Your task to perform on an android device: allow notifications from all sites in the chrome app Image 0: 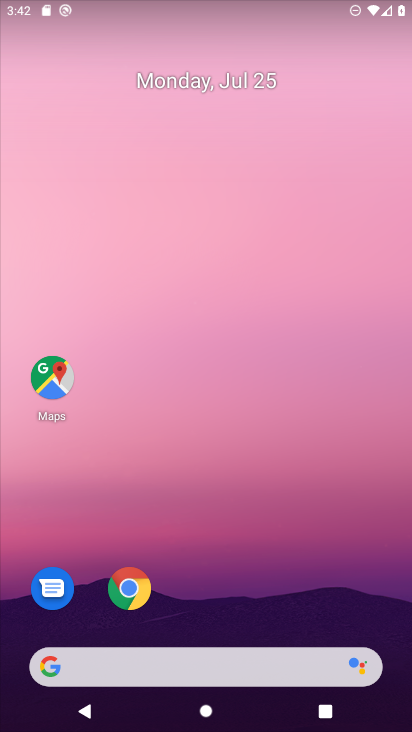
Step 0: drag from (203, 689) to (182, 166)
Your task to perform on an android device: allow notifications from all sites in the chrome app Image 1: 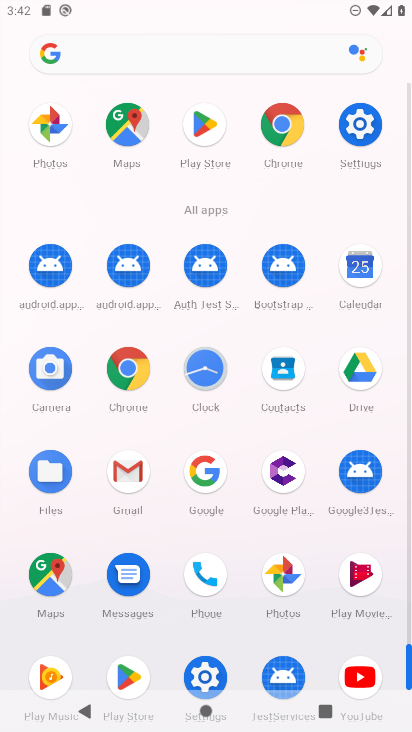
Step 1: click (286, 108)
Your task to perform on an android device: allow notifications from all sites in the chrome app Image 2: 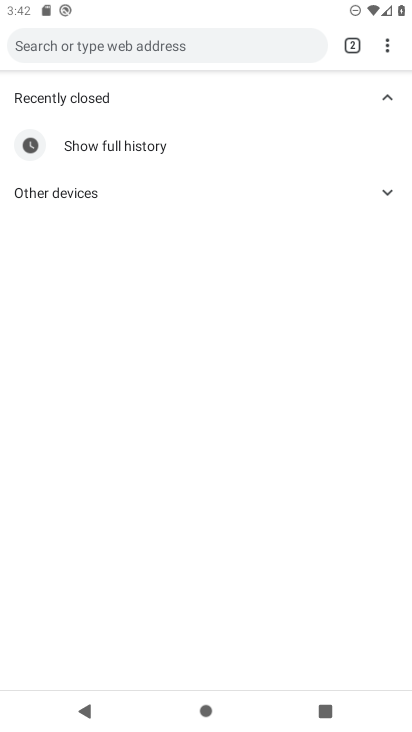
Step 2: press back button
Your task to perform on an android device: allow notifications from all sites in the chrome app Image 3: 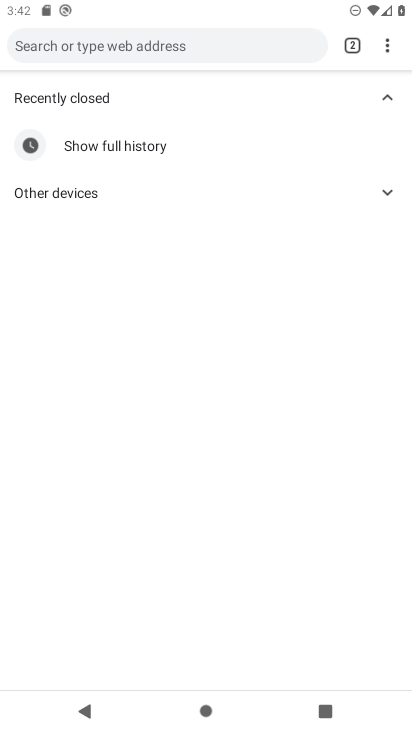
Step 3: press back button
Your task to perform on an android device: allow notifications from all sites in the chrome app Image 4: 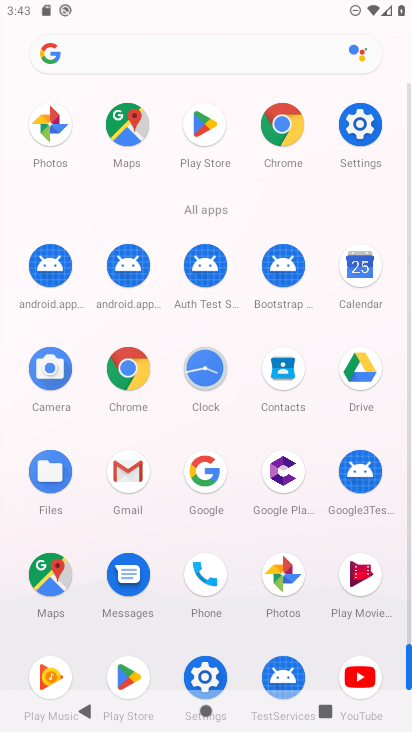
Step 4: click (285, 117)
Your task to perform on an android device: allow notifications from all sites in the chrome app Image 5: 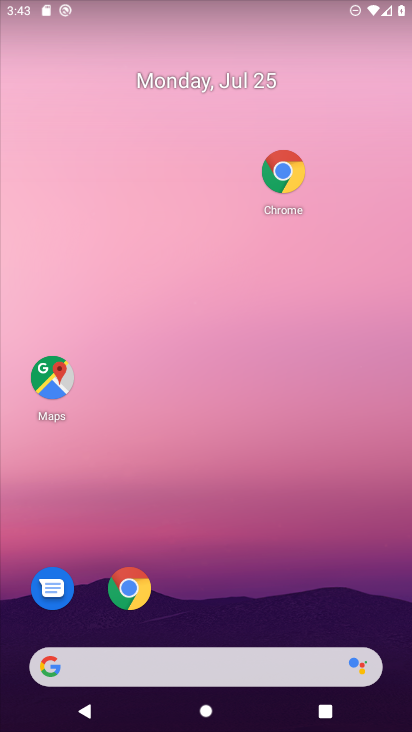
Step 5: drag from (301, 517) to (236, 158)
Your task to perform on an android device: allow notifications from all sites in the chrome app Image 6: 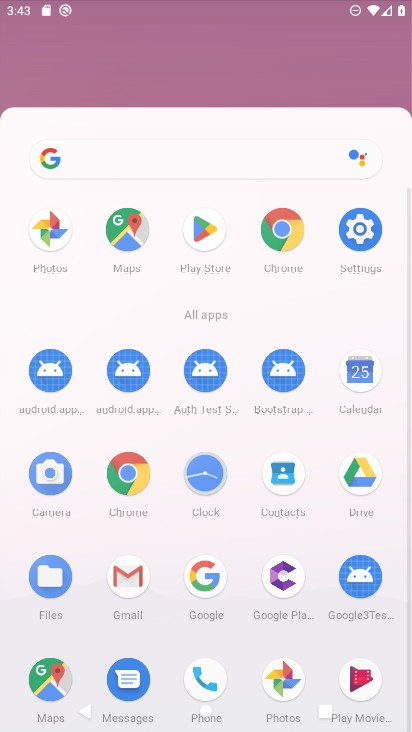
Step 6: drag from (269, 509) to (269, 267)
Your task to perform on an android device: allow notifications from all sites in the chrome app Image 7: 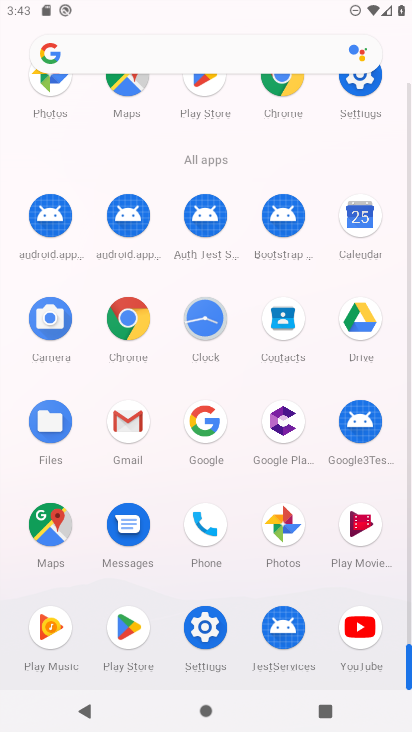
Step 7: click (113, 319)
Your task to perform on an android device: allow notifications from all sites in the chrome app Image 8: 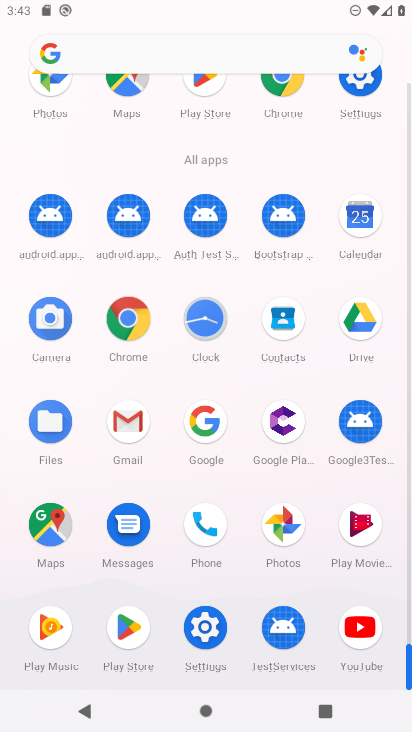
Step 8: click (115, 320)
Your task to perform on an android device: allow notifications from all sites in the chrome app Image 9: 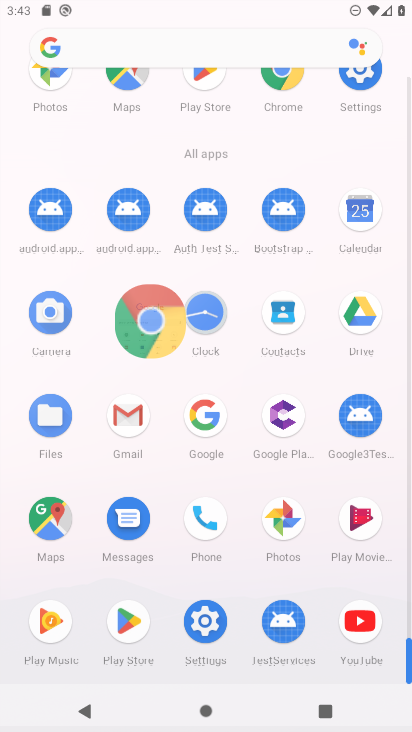
Step 9: click (118, 320)
Your task to perform on an android device: allow notifications from all sites in the chrome app Image 10: 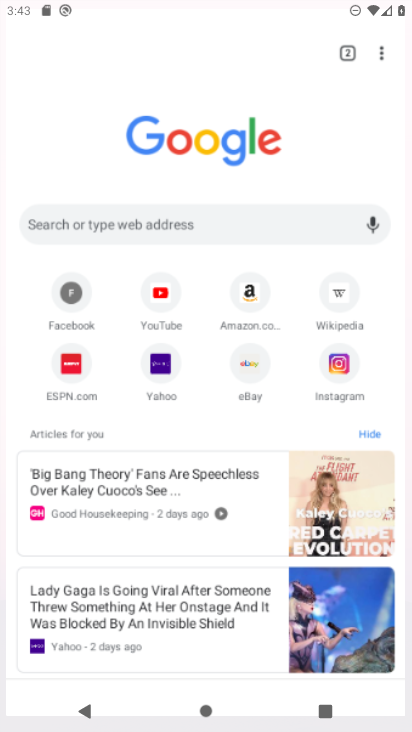
Step 10: click (119, 320)
Your task to perform on an android device: allow notifications from all sites in the chrome app Image 11: 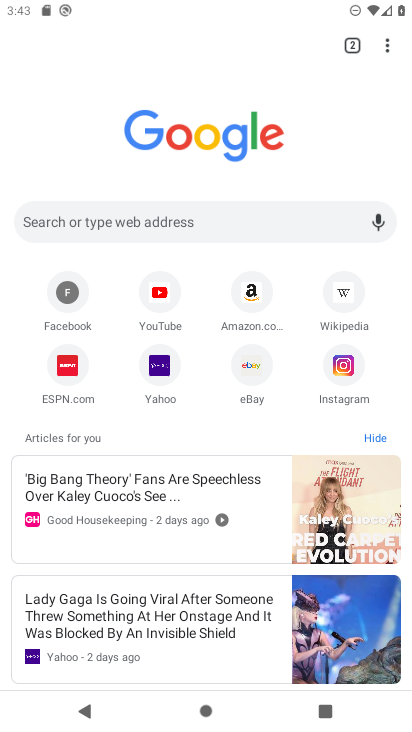
Step 11: drag from (384, 39) to (219, 381)
Your task to perform on an android device: allow notifications from all sites in the chrome app Image 12: 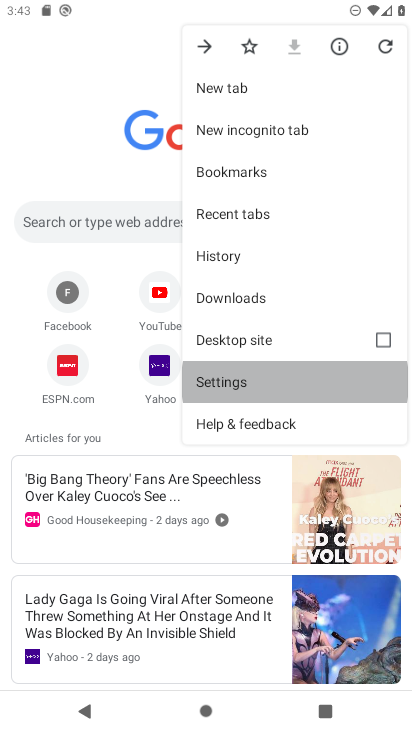
Step 12: click (221, 380)
Your task to perform on an android device: allow notifications from all sites in the chrome app Image 13: 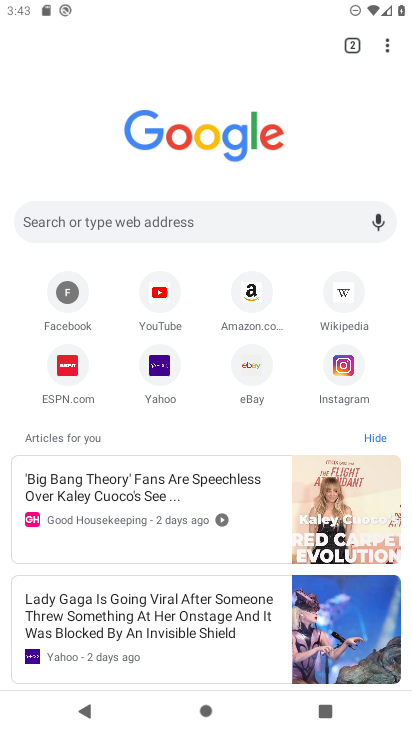
Step 13: click (221, 374)
Your task to perform on an android device: allow notifications from all sites in the chrome app Image 14: 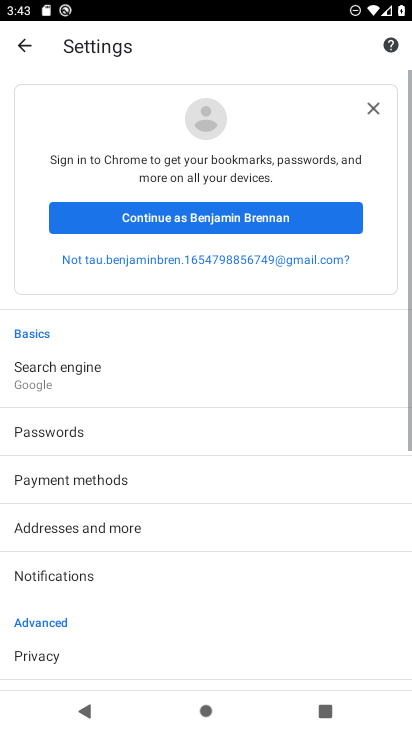
Step 14: drag from (105, 608) to (63, 248)
Your task to perform on an android device: allow notifications from all sites in the chrome app Image 15: 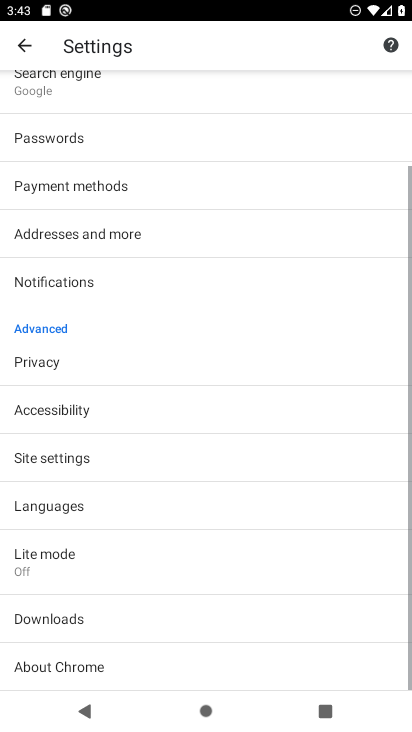
Step 15: drag from (95, 573) to (97, 211)
Your task to perform on an android device: allow notifications from all sites in the chrome app Image 16: 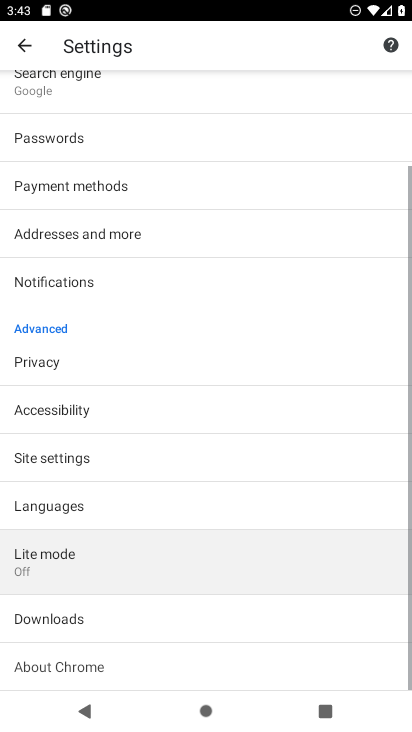
Step 16: click (181, 258)
Your task to perform on an android device: allow notifications from all sites in the chrome app Image 17: 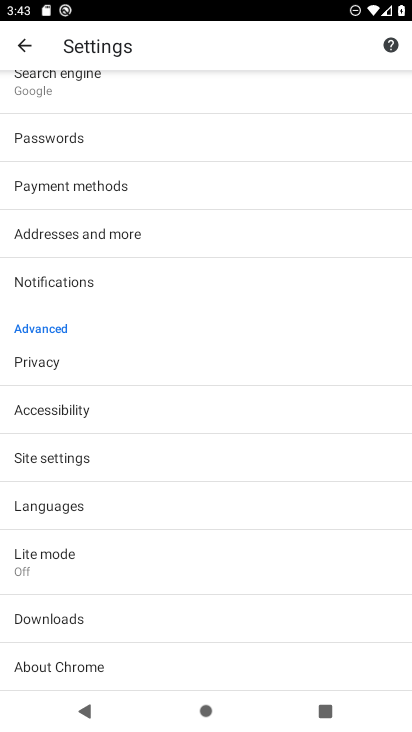
Step 17: drag from (87, 475) to (87, 148)
Your task to perform on an android device: allow notifications from all sites in the chrome app Image 18: 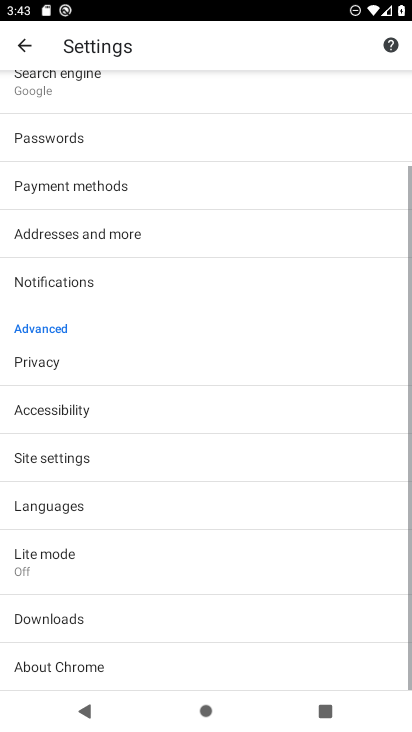
Step 18: drag from (23, 618) to (0, 224)
Your task to perform on an android device: allow notifications from all sites in the chrome app Image 19: 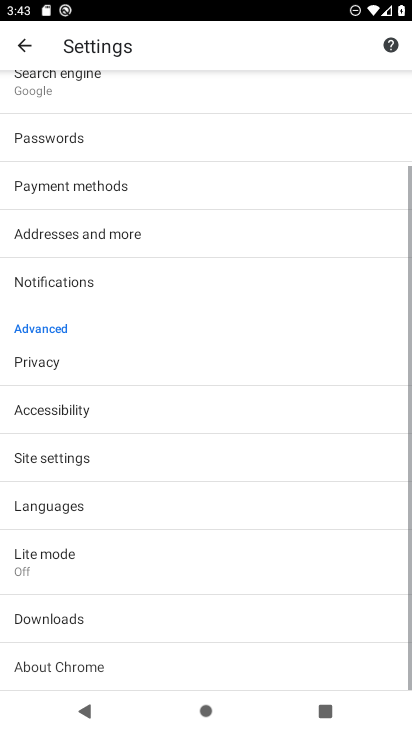
Step 19: drag from (116, 478) to (170, 360)
Your task to perform on an android device: allow notifications from all sites in the chrome app Image 20: 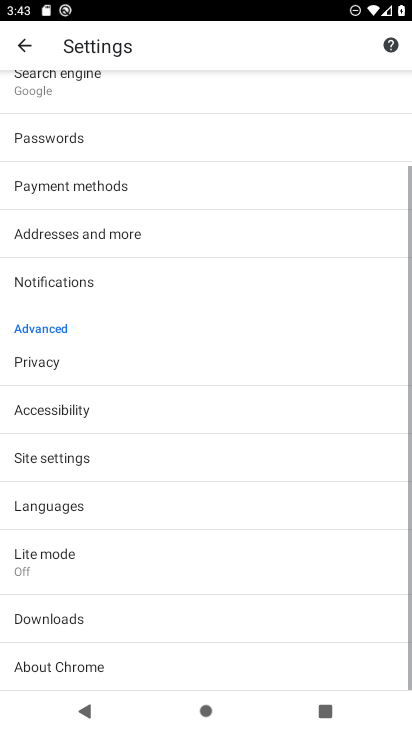
Step 20: drag from (33, 649) to (34, 333)
Your task to perform on an android device: allow notifications from all sites in the chrome app Image 21: 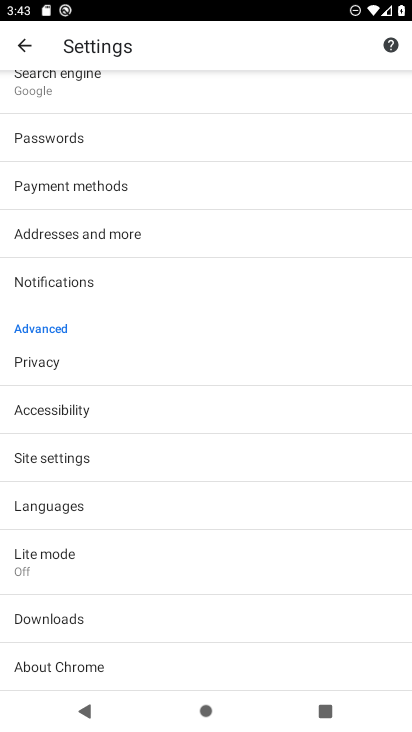
Step 21: click (30, 455)
Your task to perform on an android device: allow notifications from all sites in the chrome app Image 22: 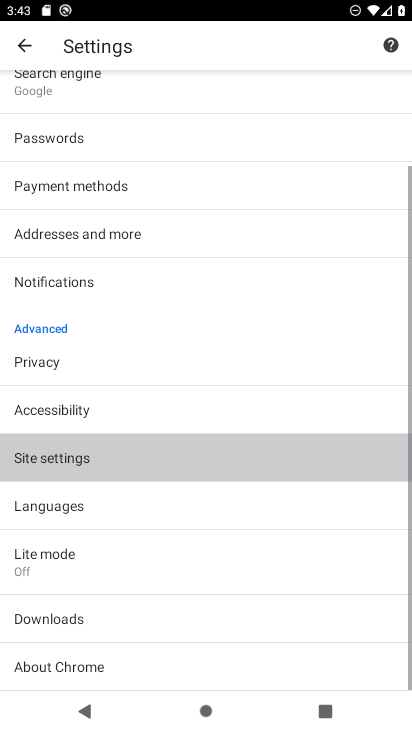
Step 22: click (35, 457)
Your task to perform on an android device: allow notifications from all sites in the chrome app Image 23: 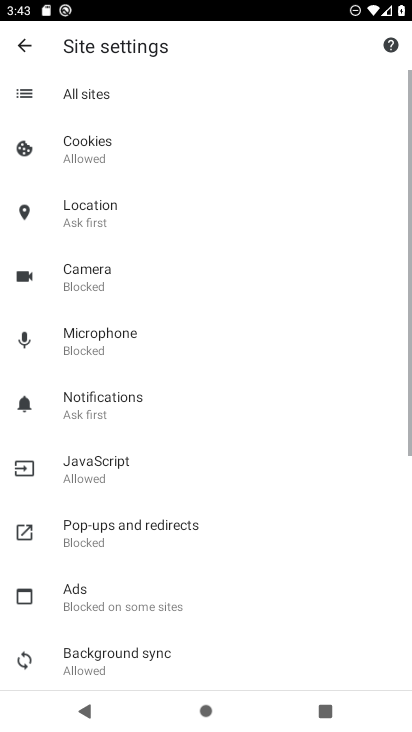
Step 23: click (72, 103)
Your task to perform on an android device: allow notifications from all sites in the chrome app Image 24: 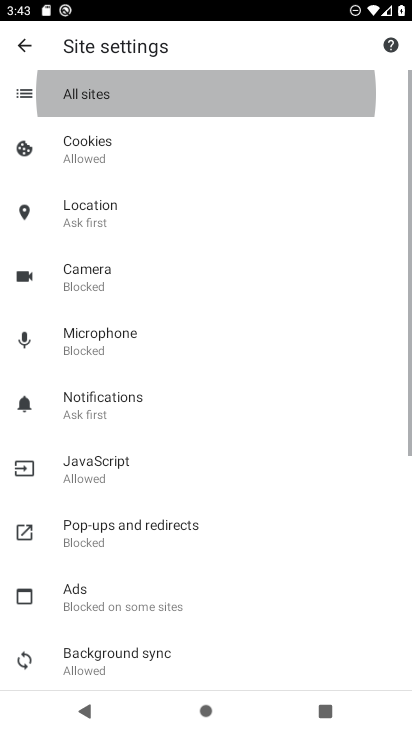
Step 24: click (74, 106)
Your task to perform on an android device: allow notifications from all sites in the chrome app Image 25: 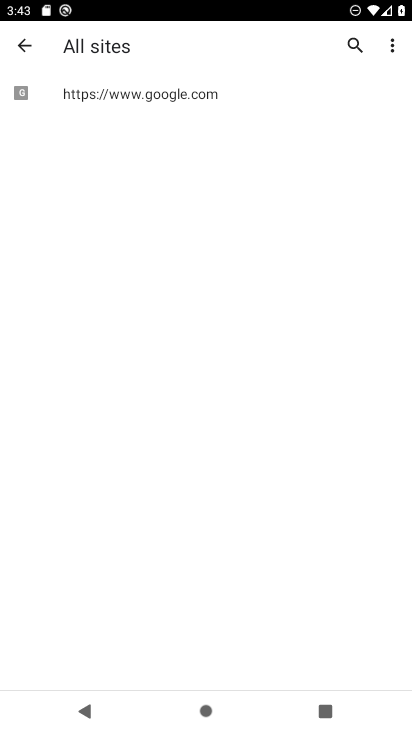
Step 25: click (162, 60)
Your task to perform on an android device: allow notifications from all sites in the chrome app Image 26: 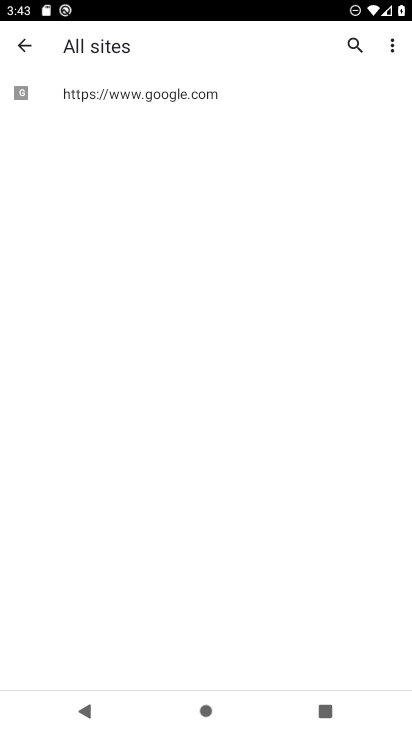
Step 26: click (153, 99)
Your task to perform on an android device: allow notifications from all sites in the chrome app Image 27: 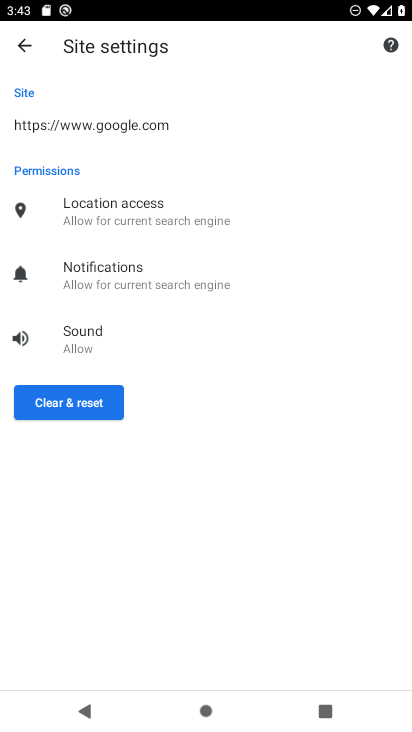
Step 27: click (75, 257)
Your task to perform on an android device: allow notifications from all sites in the chrome app Image 28: 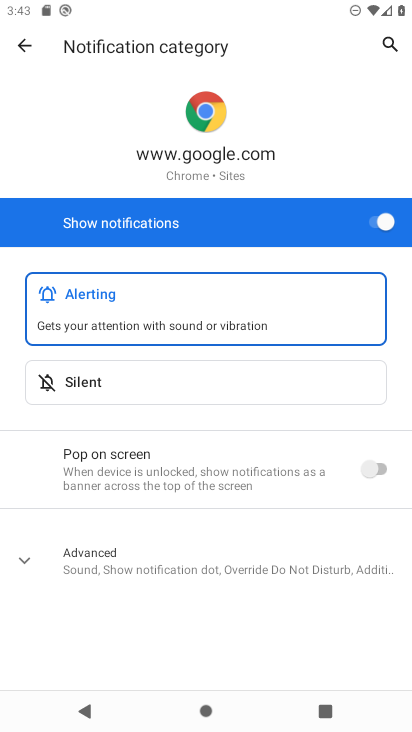
Step 28: task complete